Your task to perform on an android device: delete the emails in spam in the gmail app Image 0: 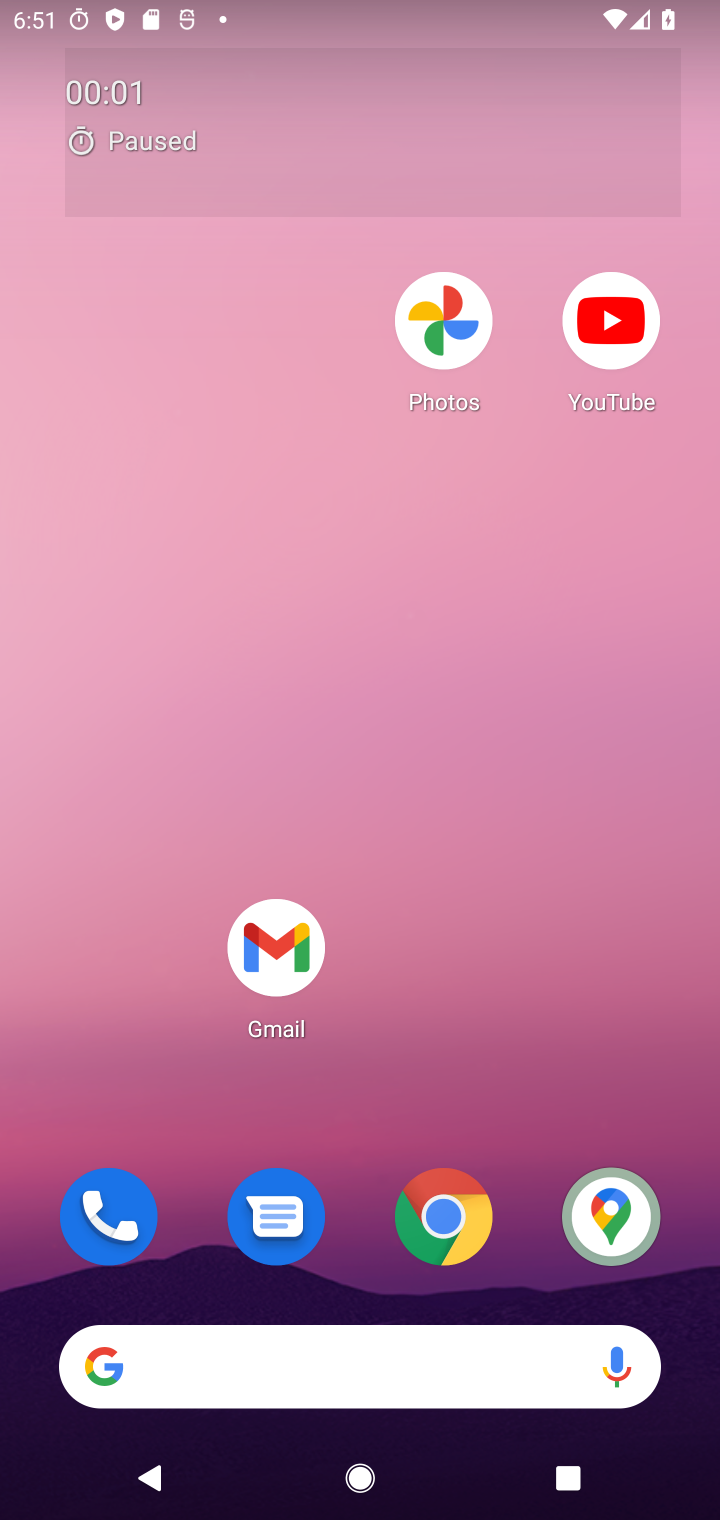
Step 0: drag from (531, 712) to (460, 50)
Your task to perform on an android device: delete the emails in spam in the gmail app Image 1: 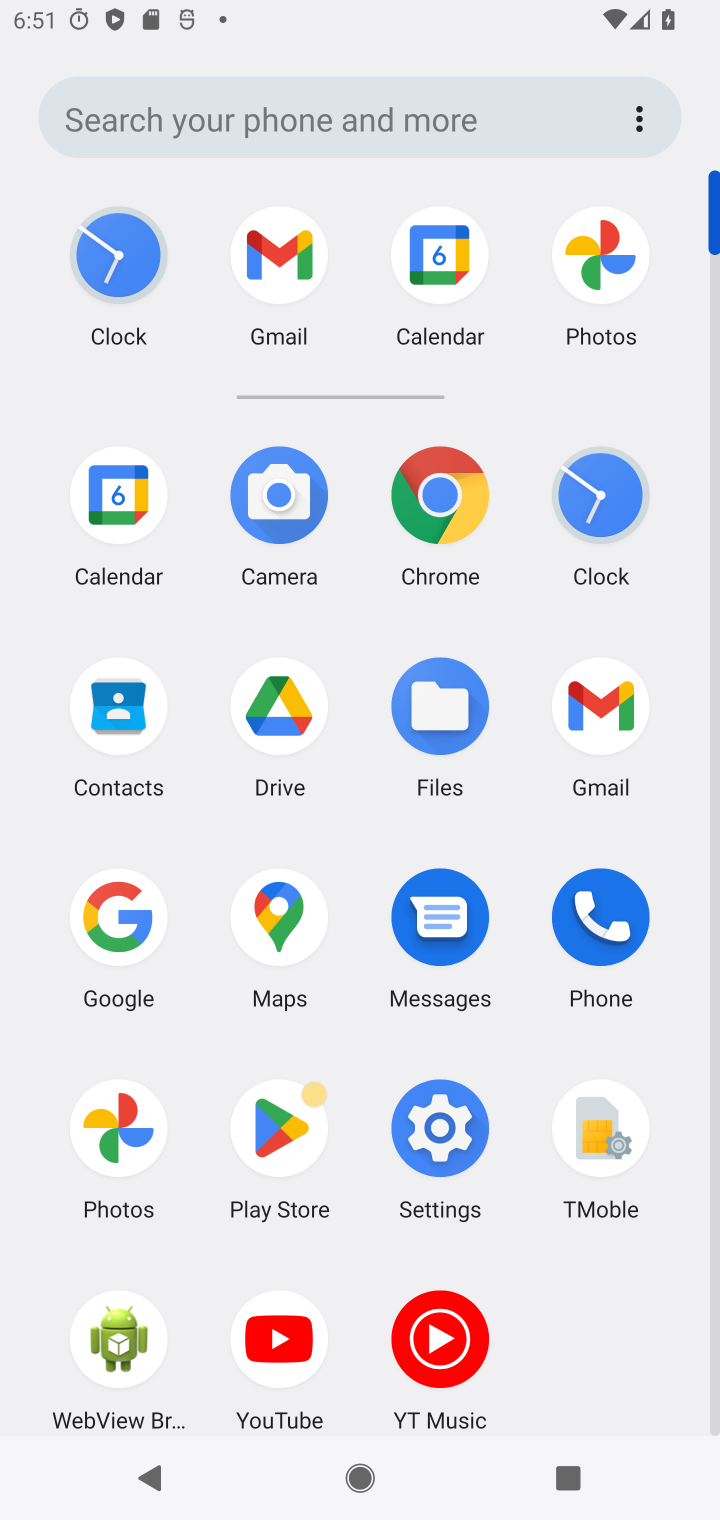
Step 1: click (593, 701)
Your task to perform on an android device: delete the emails in spam in the gmail app Image 2: 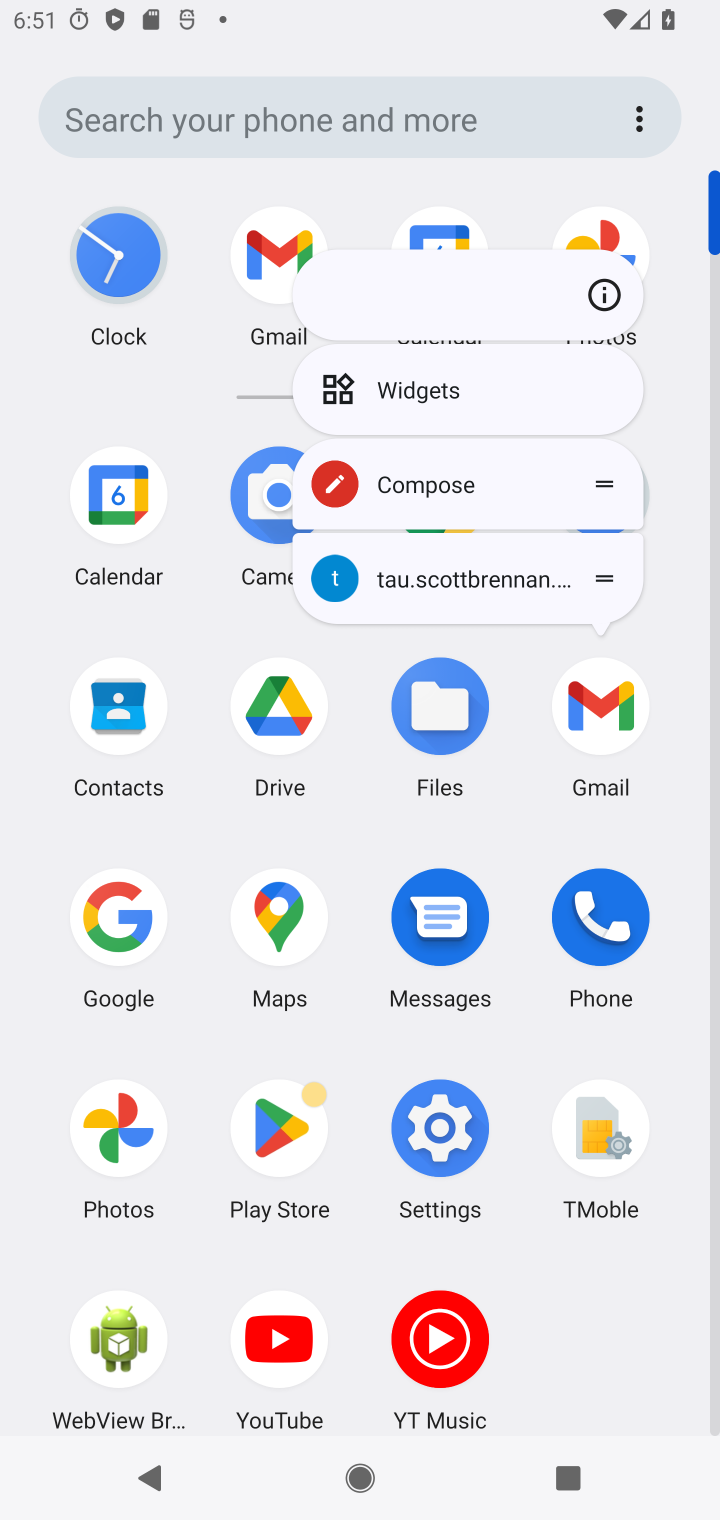
Step 2: click (593, 701)
Your task to perform on an android device: delete the emails in spam in the gmail app Image 3: 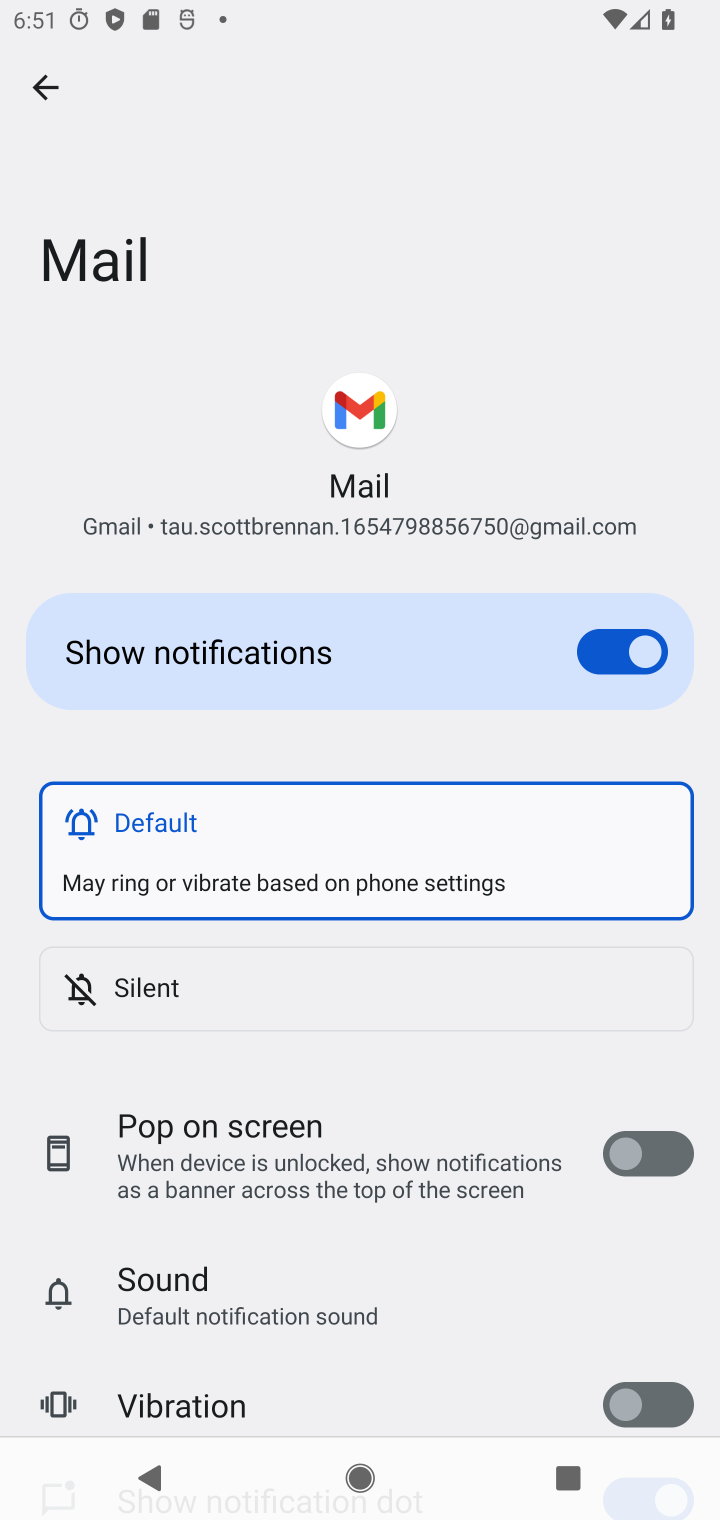
Step 3: click (27, 61)
Your task to perform on an android device: delete the emails in spam in the gmail app Image 4: 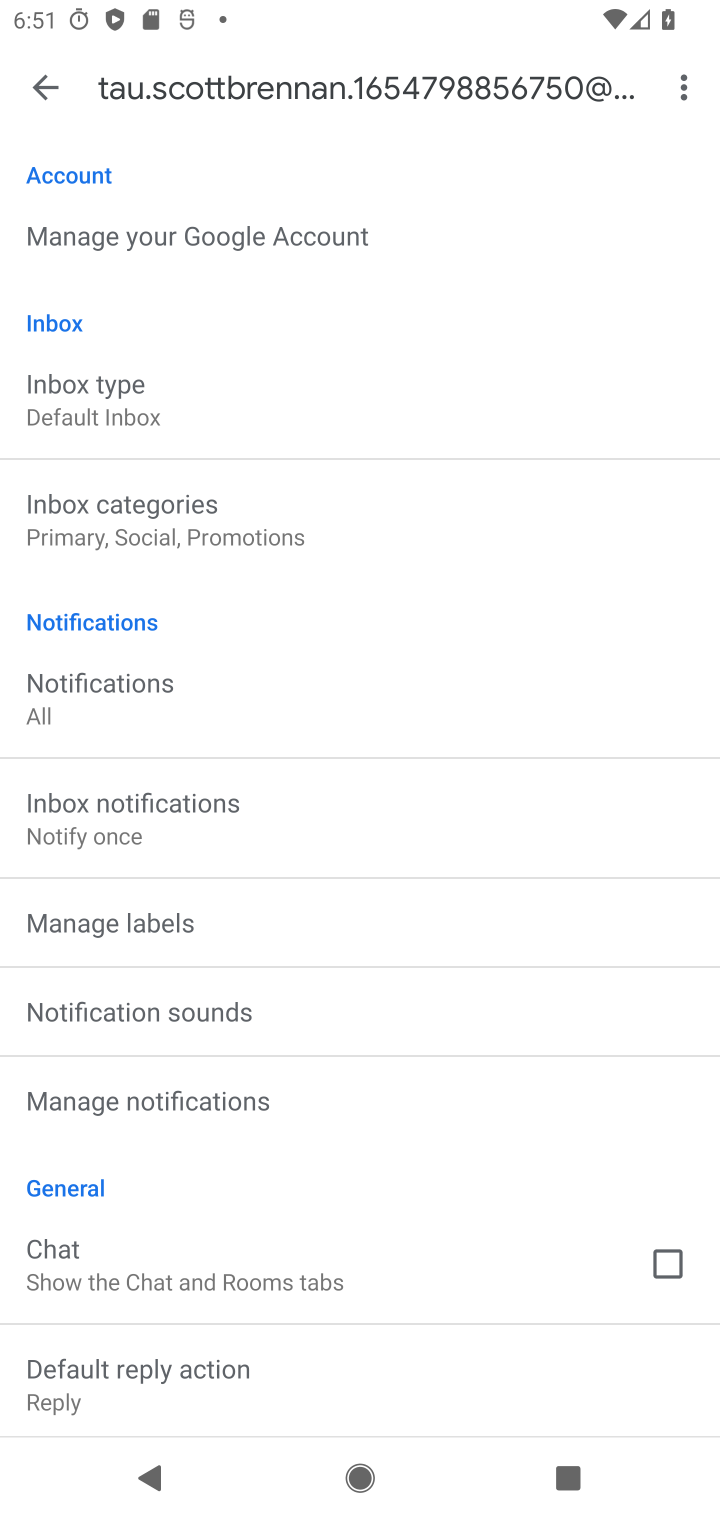
Step 4: click (54, 80)
Your task to perform on an android device: delete the emails in spam in the gmail app Image 5: 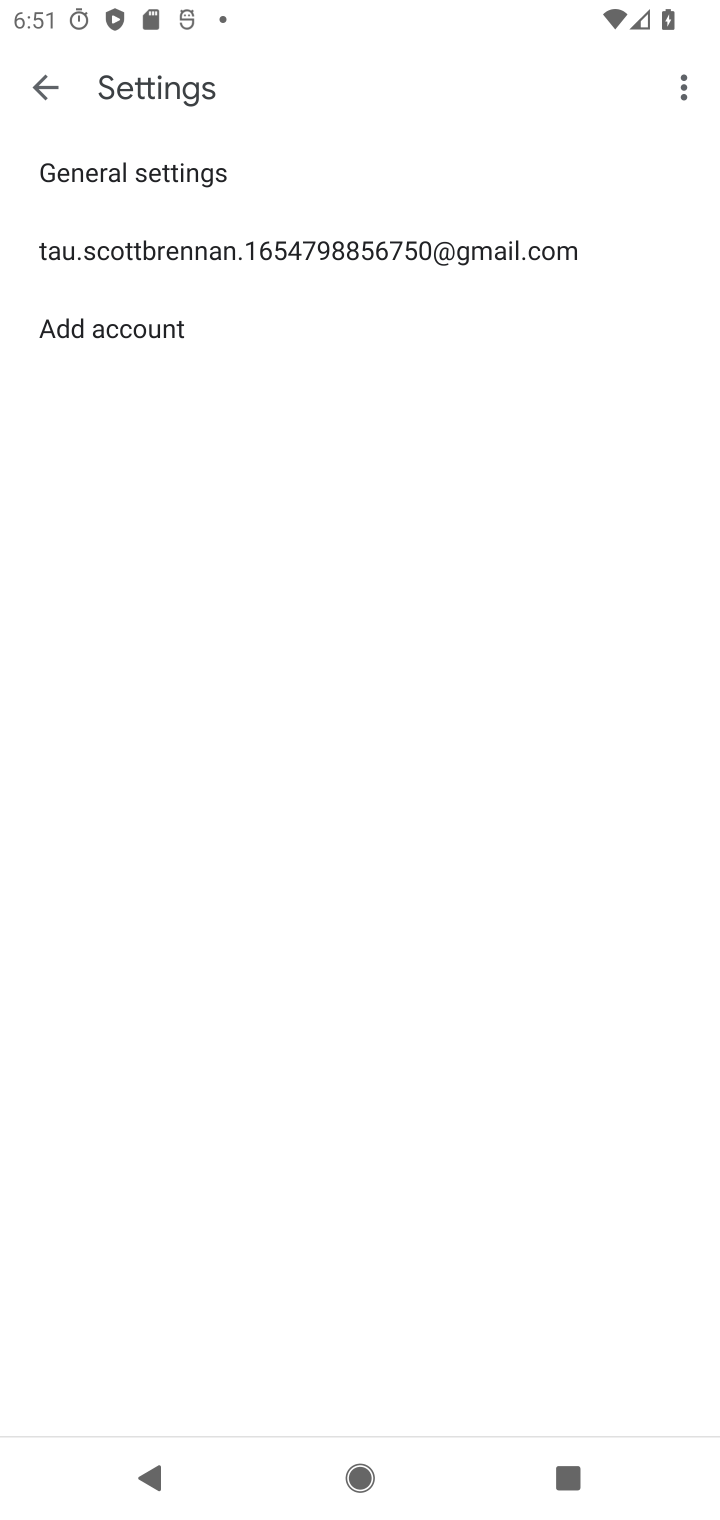
Step 5: click (54, 80)
Your task to perform on an android device: delete the emails in spam in the gmail app Image 6: 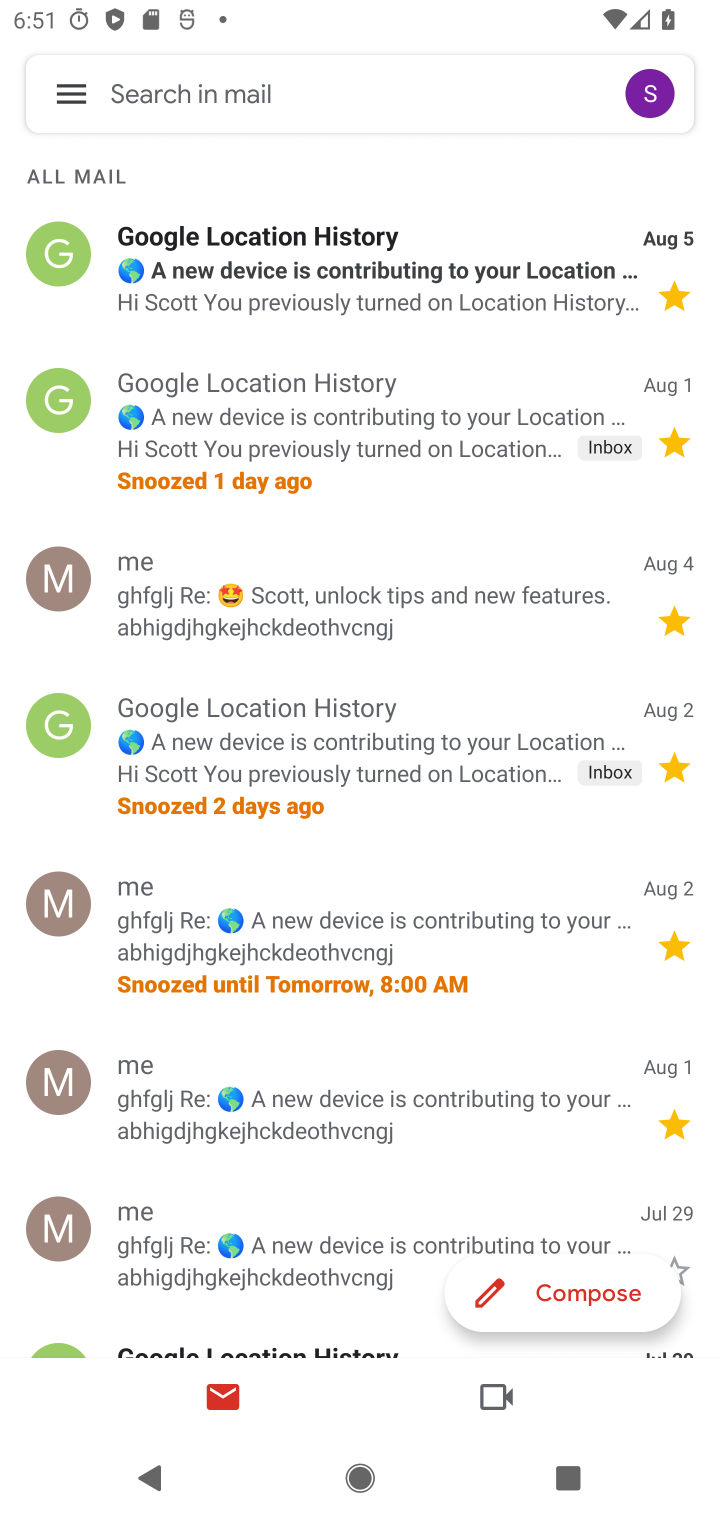
Step 6: click (54, 80)
Your task to perform on an android device: delete the emails in spam in the gmail app Image 7: 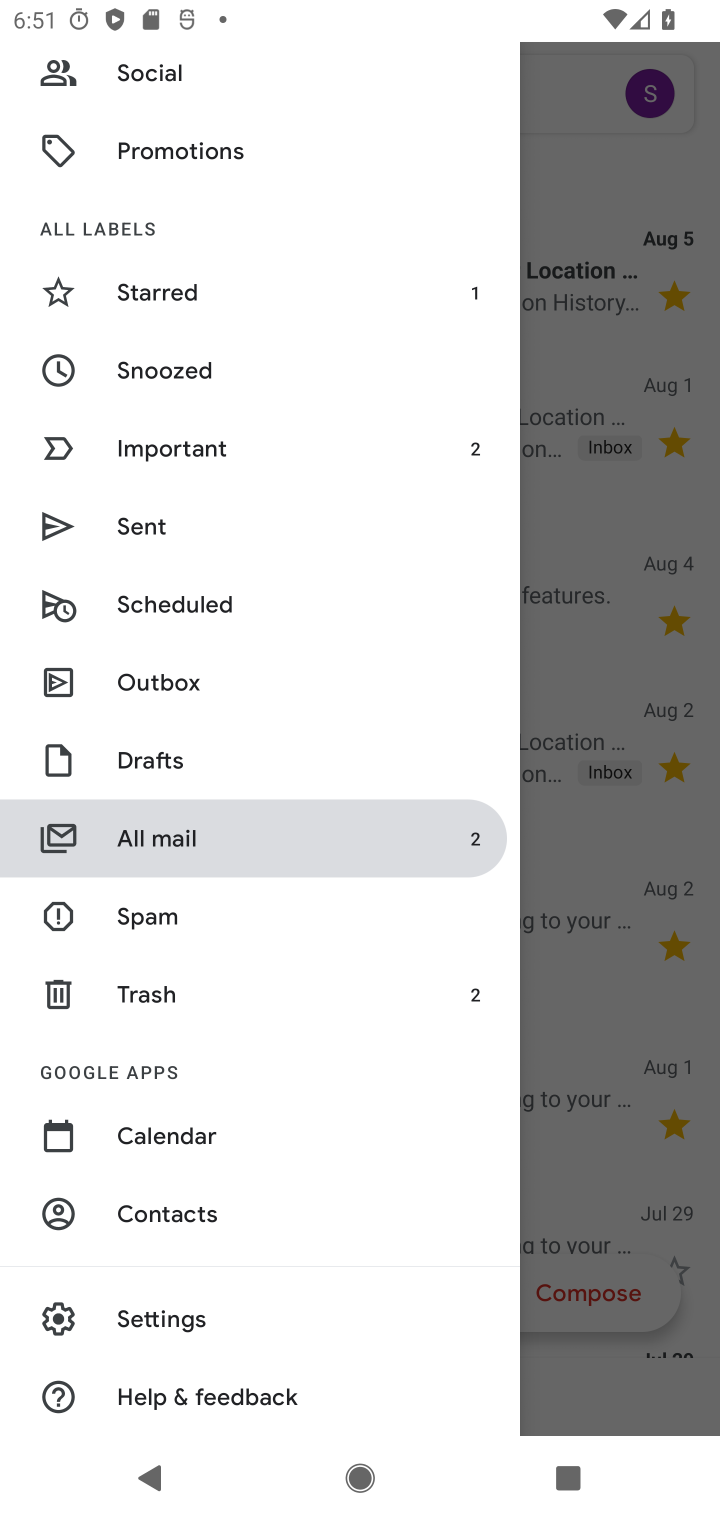
Step 7: click (122, 909)
Your task to perform on an android device: delete the emails in spam in the gmail app Image 8: 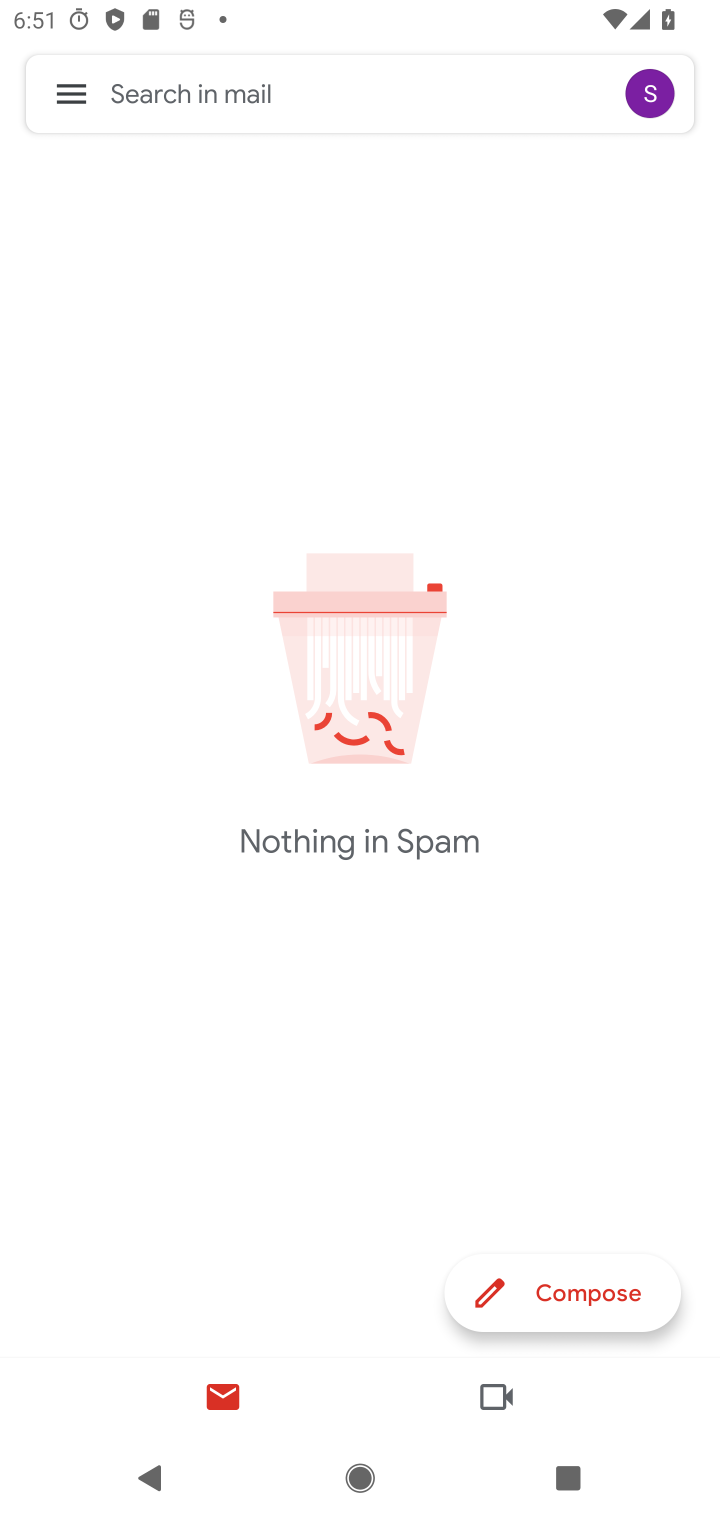
Step 8: task complete